Your task to perform on an android device: What is the news today? Image 0: 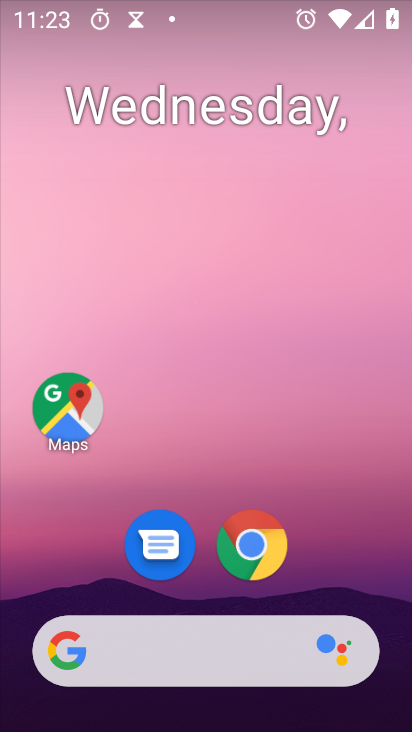
Step 0: press home button
Your task to perform on an android device: What is the news today? Image 1: 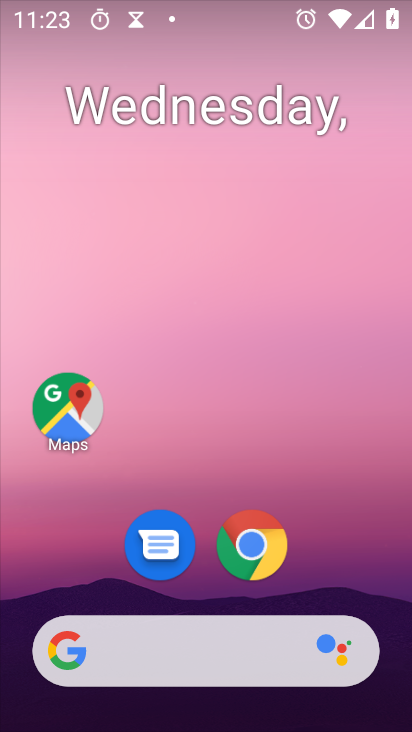
Step 1: click (76, 657)
Your task to perform on an android device: What is the news today? Image 2: 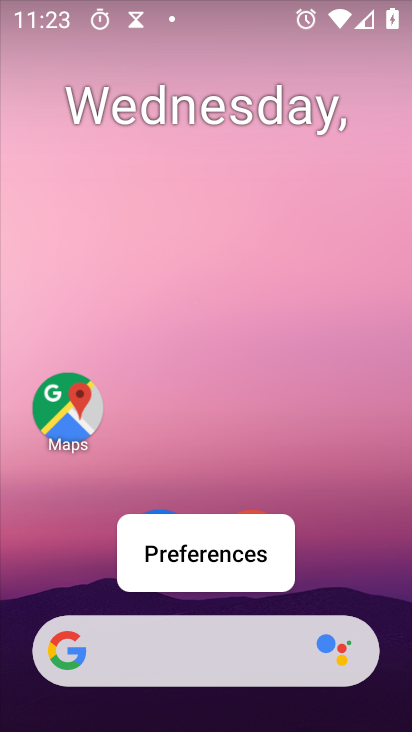
Step 2: click (82, 653)
Your task to perform on an android device: What is the news today? Image 3: 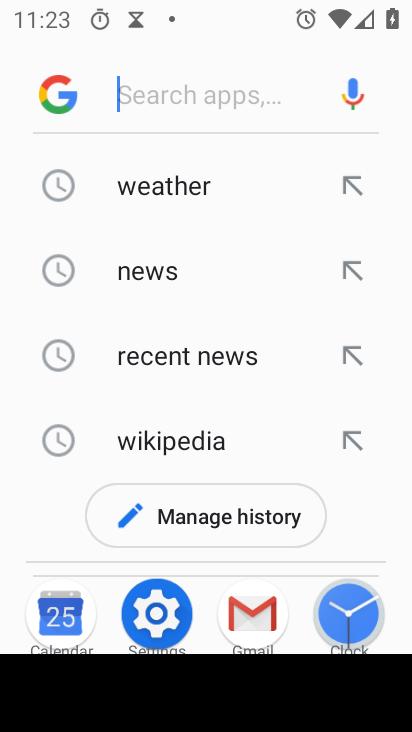
Step 3: click (150, 280)
Your task to perform on an android device: What is the news today? Image 4: 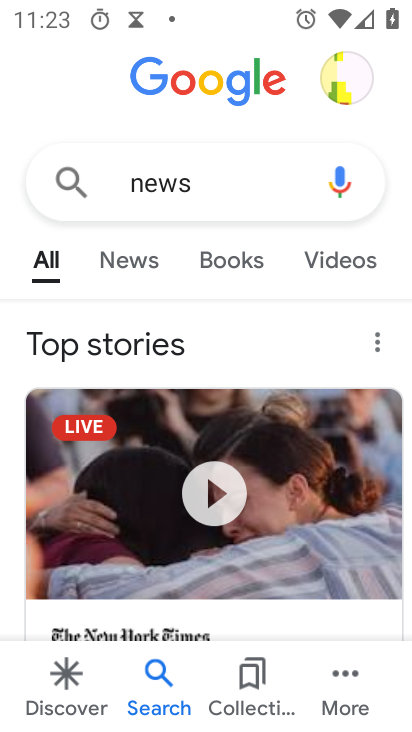
Step 4: click (129, 251)
Your task to perform on an android device: What is the news today? Image 5: 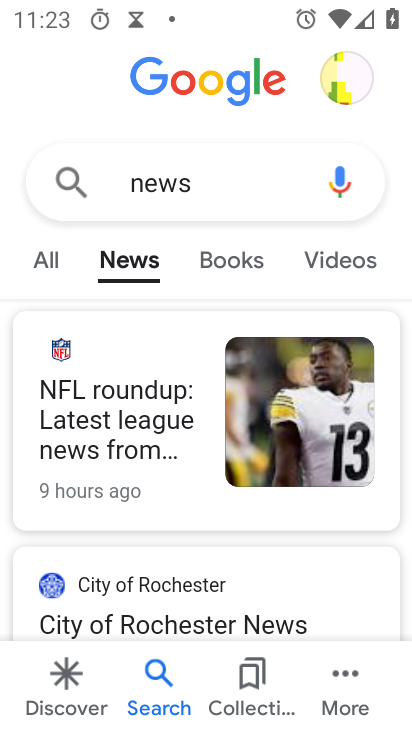
Step 5: task complete